Your task to perform on an android device: Open Google Image 0: 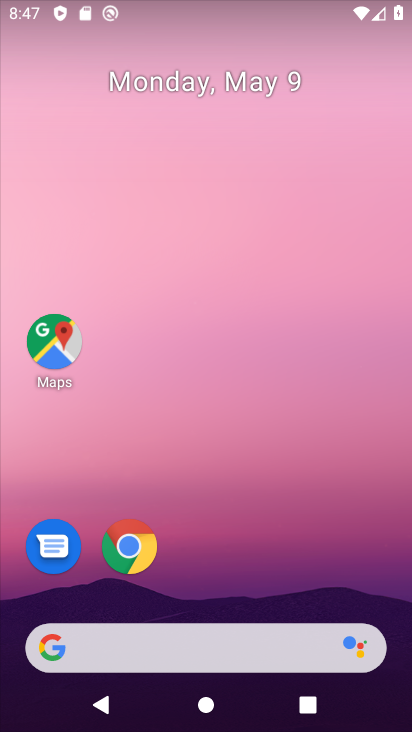
Step 0: drag from (256, 558) to (216, 44)
Your task to perform on an android device: Open Google Image 1: 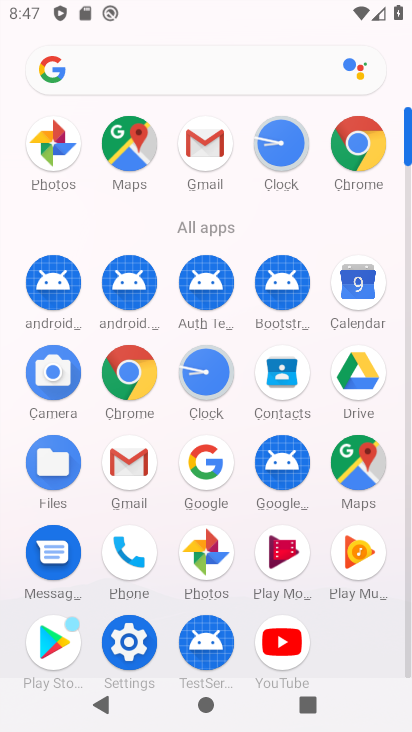
Step 1: click (198, 466)
Your task to perform on an android device: Open Google Image 2: 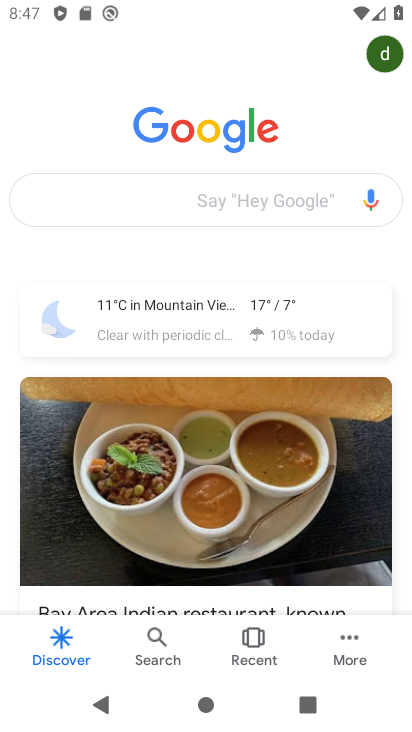
Step 2: task complete